Your task to perform on an android device: Go to internet settings Image 0: 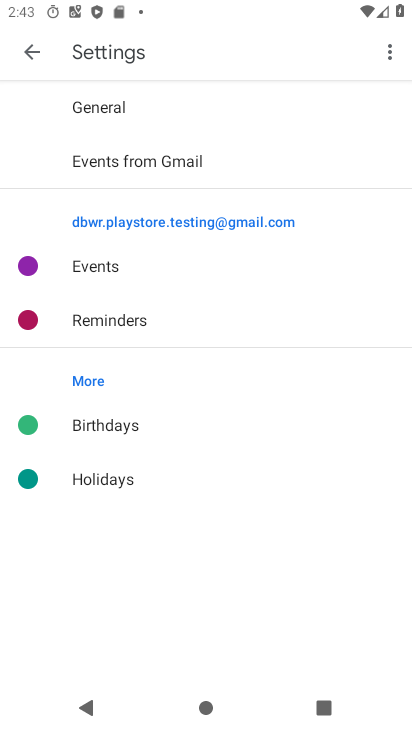
Step 0: press home button
Your task to perform on an android device: Go to internet settings Image 1: 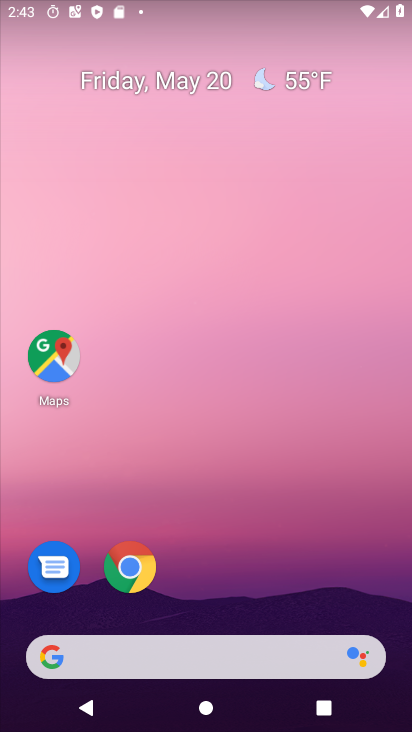
Step 1: drag from (176, 608) to (221, 213)
Your task to perform on an android device: Go to internet settings Image 2: 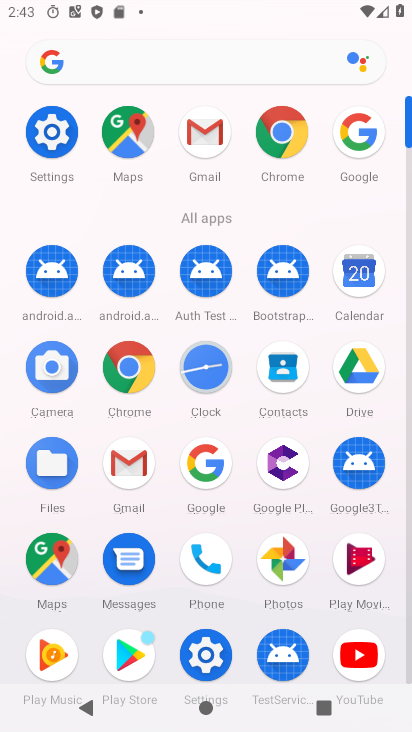
Step 2: click (63, 134)
Your task to perform on an android device: Go to internet settings Image 3: 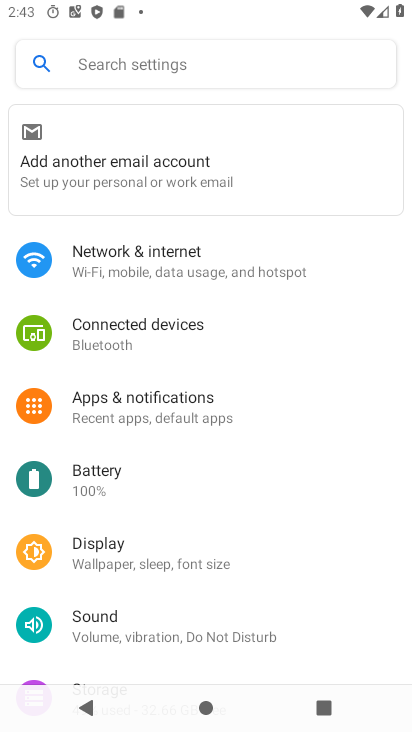
Step 3: click (114, 266)
Your task to perform on an android device: Go to internet settings Image 4: 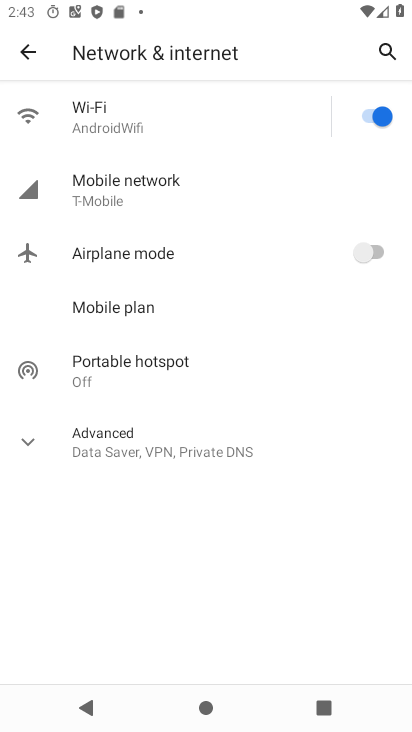
Step 4: click (120, 445)
Your task to perform on an android device: Go to internet settings Image 5: 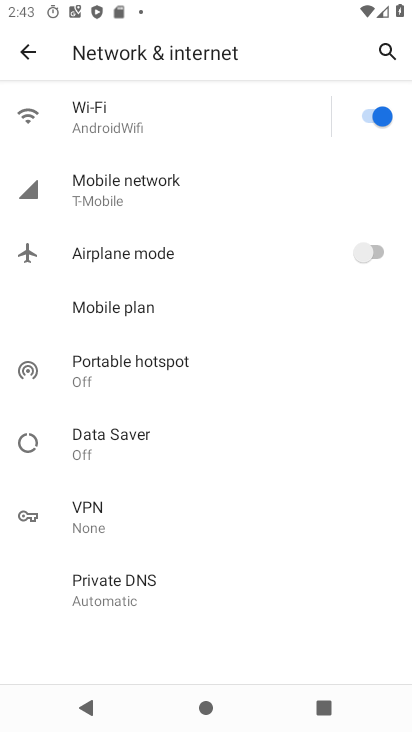
Step 5: task complete